Your task to perform on an android device: Open Reddit.com Image 0: 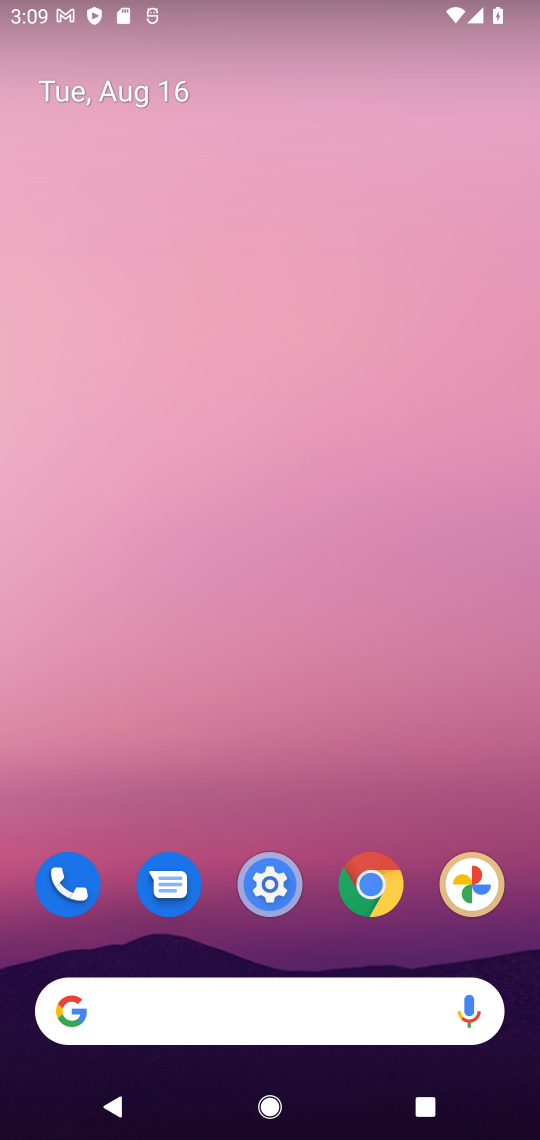
Step 0: click (370, 891)
Your task to perform on an android device: Open Reddit.com Image 1: 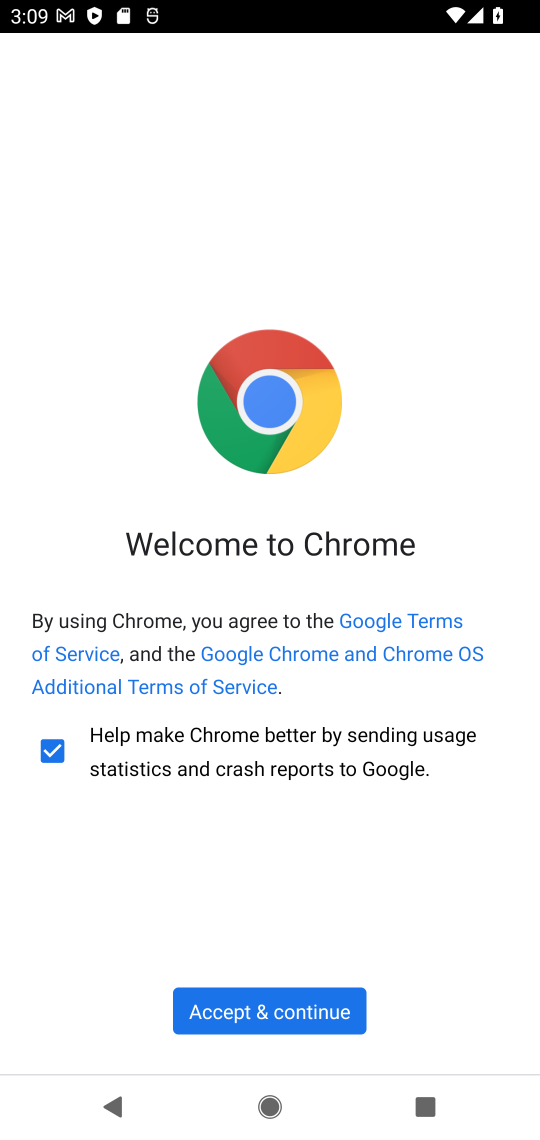
Step 1: click (266, 998)
Your task to perform on an android device: Open Reddit.com Image 2: 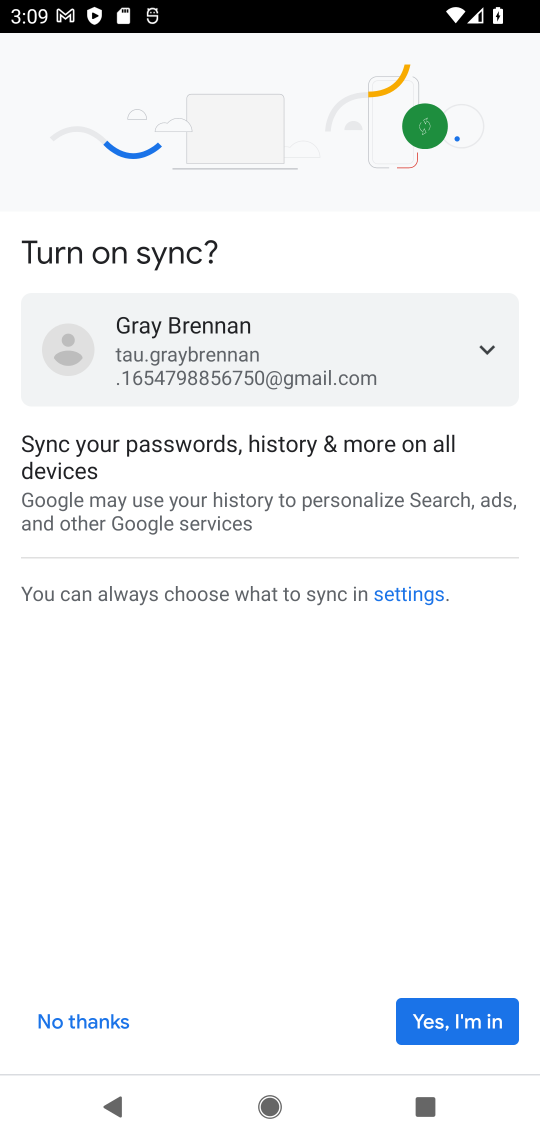
Step 2: click (451, 1034)
Your task to perform on an android device: Open Reddit.com Image 3: 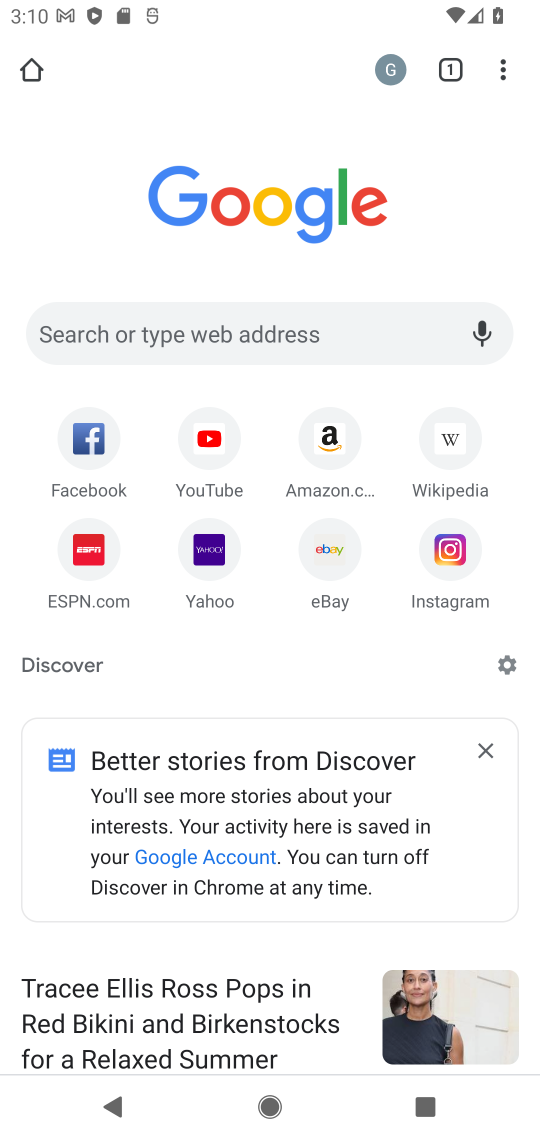
Step 3: click (247, 341)
Your task to perform on an android device: Open Reddit.com Image 4: 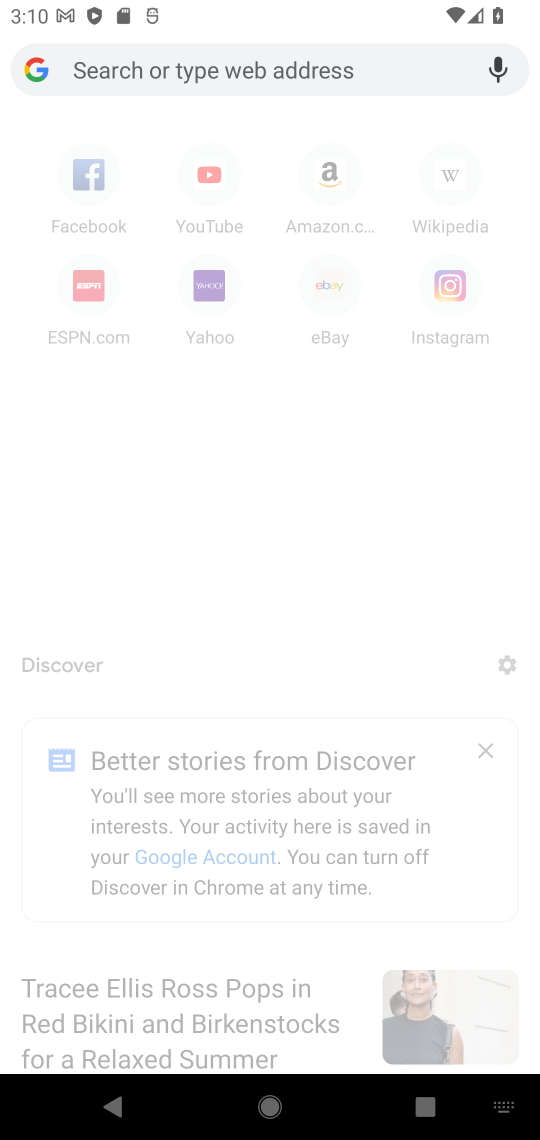
Step 4: type "Reddit.com"
Your task to perform on an android device: Open Reddit.com Image 5: 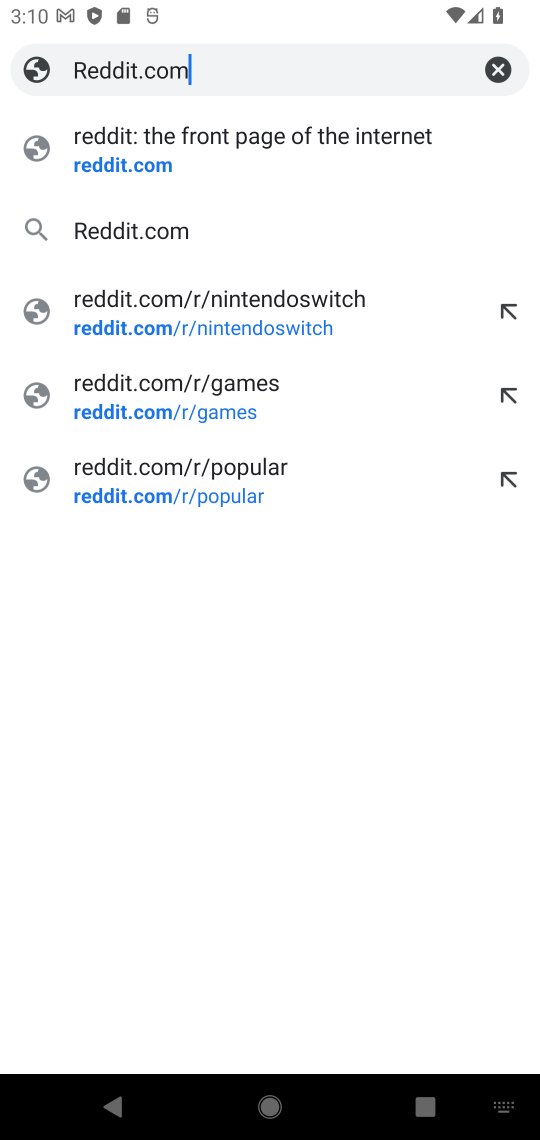
Step 5: click (162, 146)
Your task to perform on an android device: Open Reddit.com Image 6: 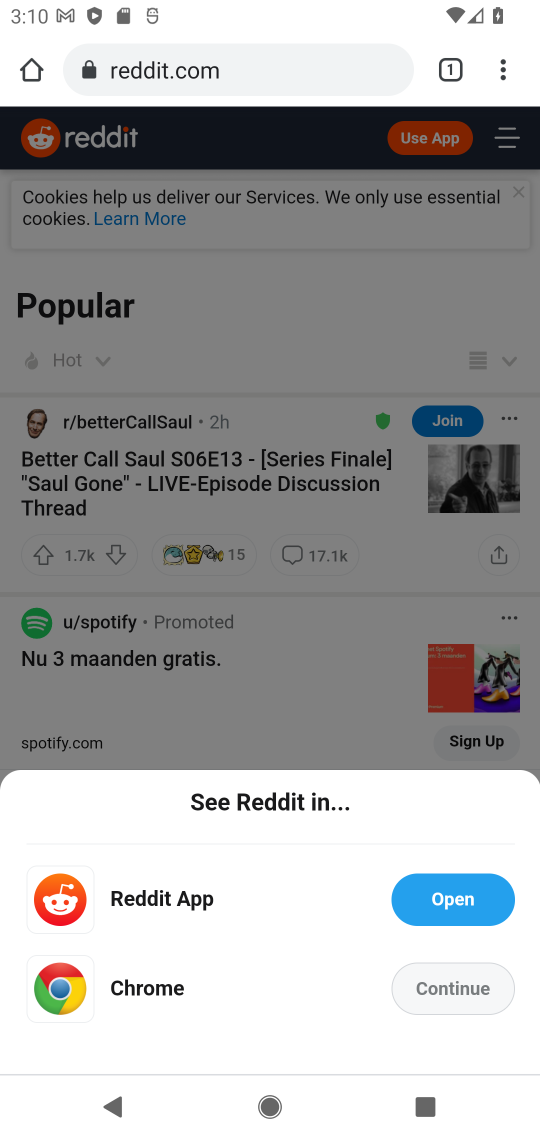
Step 6: task complete